Your task to perform on an android device: Show me recent news Image 0: 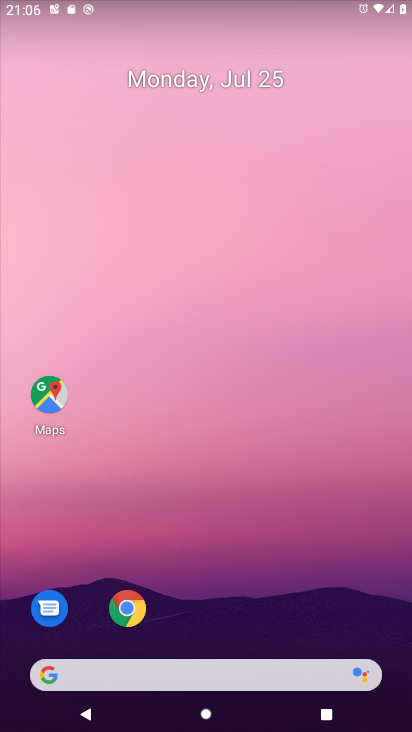
Step 0: click (229, 663)
Your task to perform on an android device: Show me recent news Image 1: 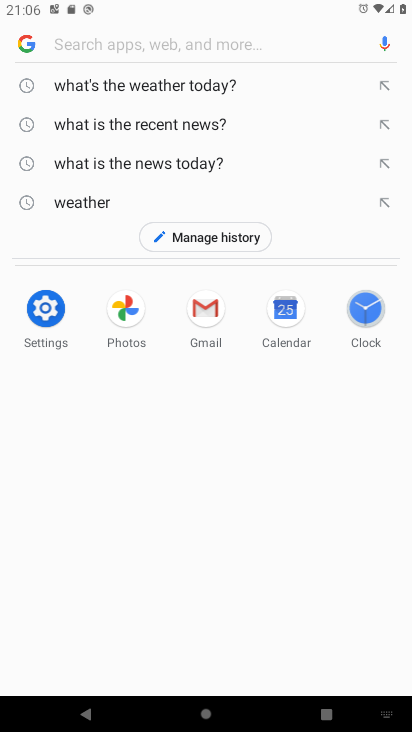
Step 1: type "recent news"
Your task to perform on an android device: Show me recent news Image 2: 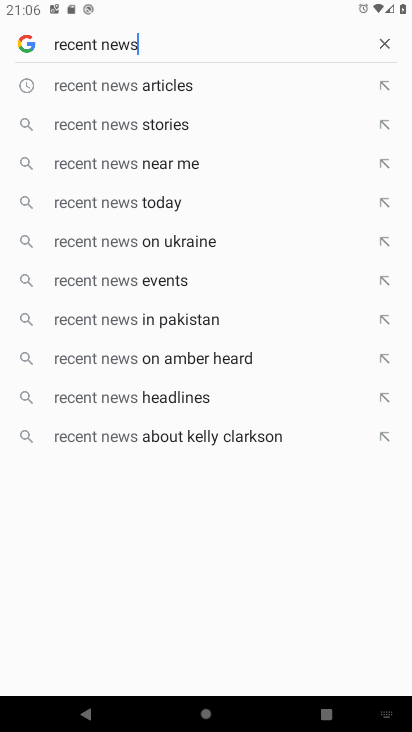
Step 2: click (165, 198)
Your task to perform on an android device: Show me recent news Image 3: 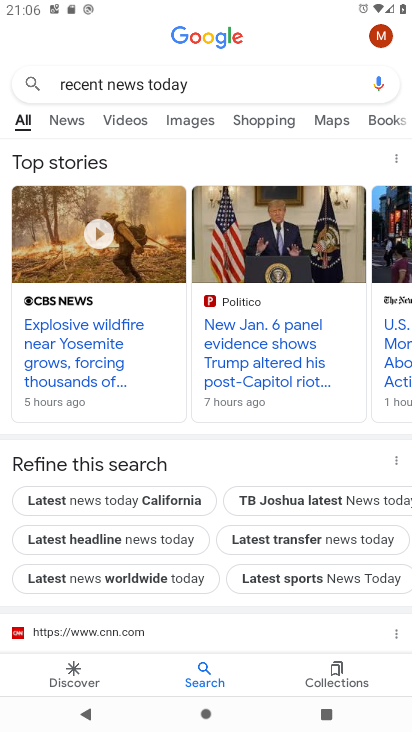
Step 3: click (78, 114)
Your task to perform on an android device: Show me recent news Image 4: 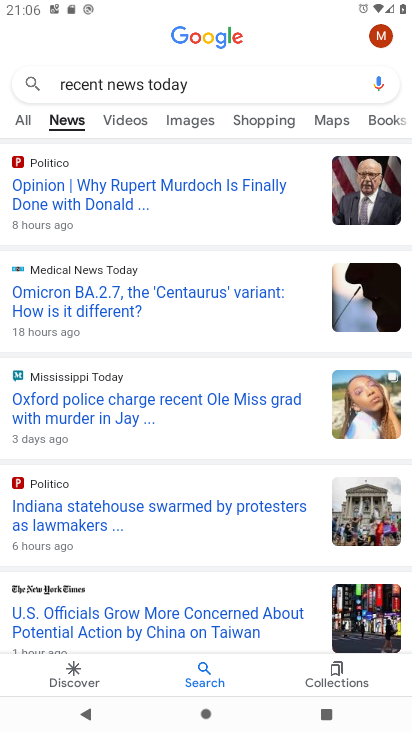
Step 4: task complete